Your task to perform on an android device: Open Reddit.com Image 0: 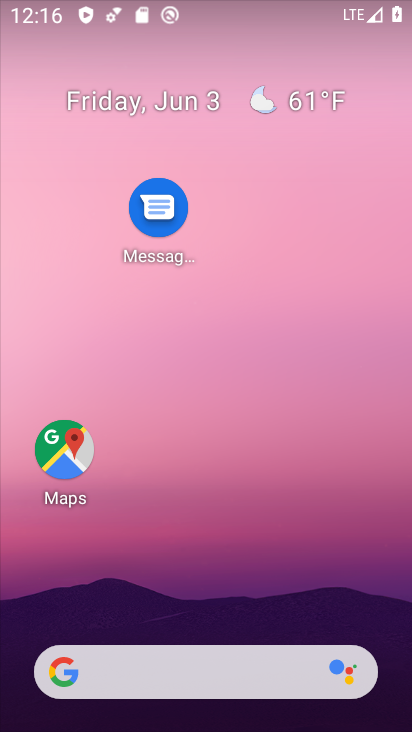
Step 0: drag from (205, 642) to (284, 13)
Your task to perform on an android device: Open Reddit.com Image 1: 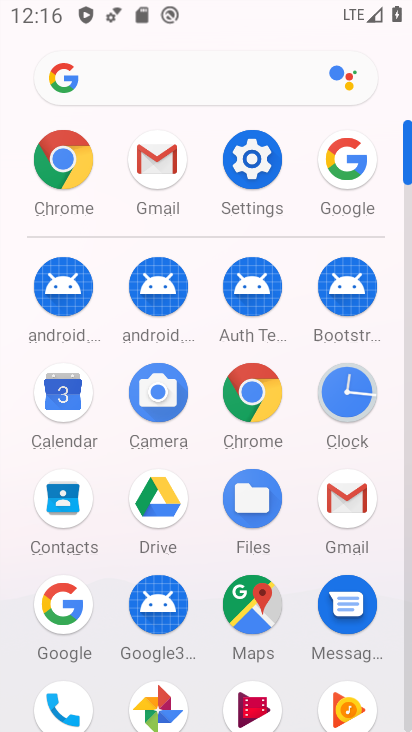
Step 1: click (236, 392)
Your task to perform on an android device: Open Reddit.com Image 2: 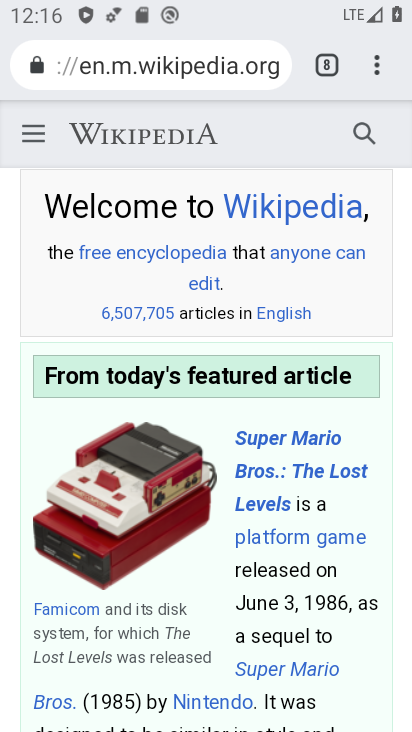
Step 2: click (310, 63)
Your task to perform on an android device: Open Reddit.com Image 3: 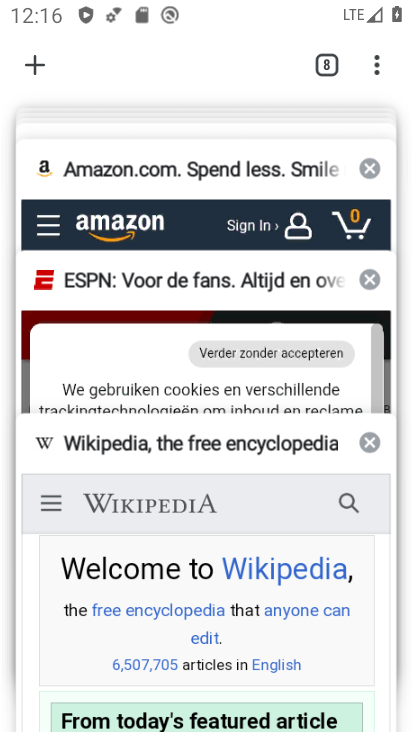
Step 3: click (27, 62)
Your task to perform on an android device: Open Reddit.com Image 4: 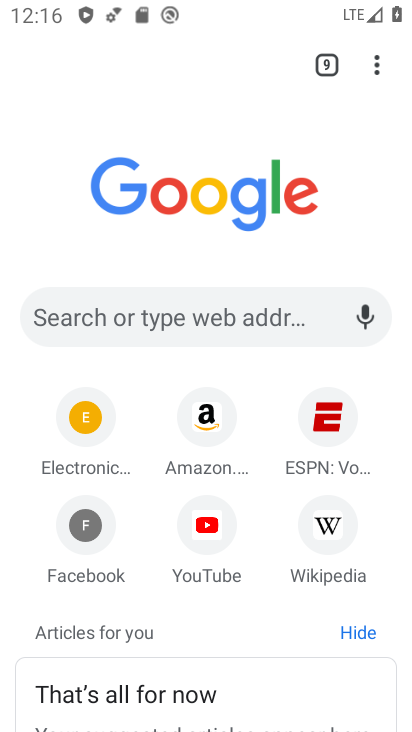
Step 4: click (189, 307)
Your task to perform on an android device: Open Reddit.com Image 5: 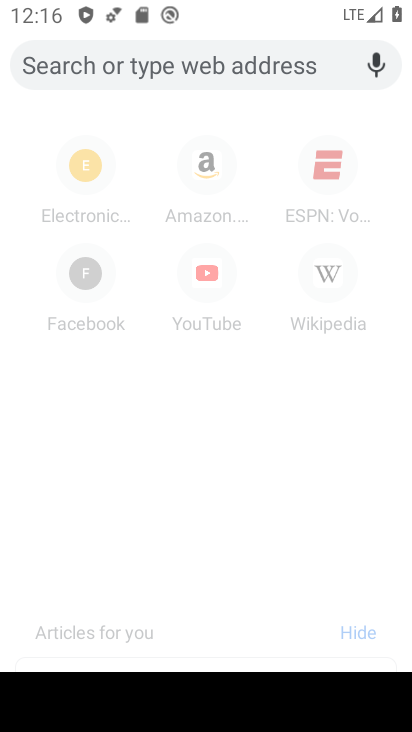
Step 5: type "reddit"
Your task to perform on an android device: Open Reddit.com Image 6: 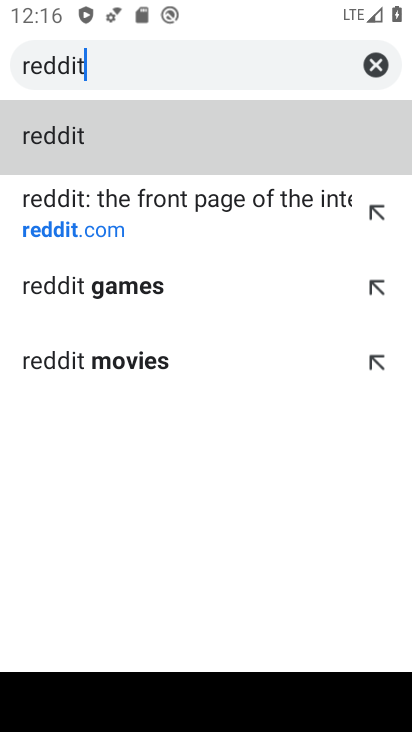
Step 6: click (69, 224)
Your task to perform on an android device: Open Reddit.com Image 7: 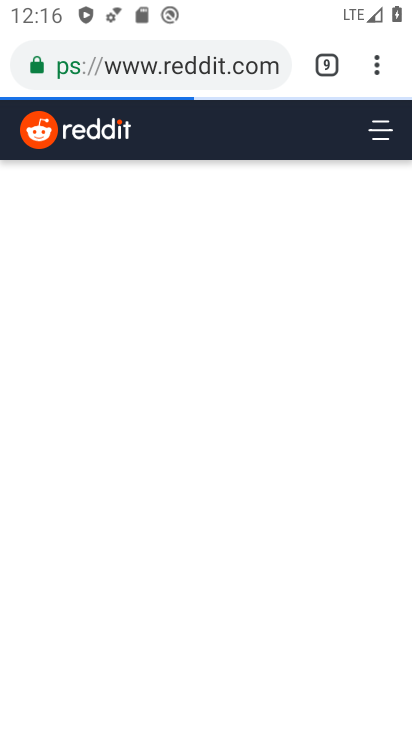
Step 7: task complete